Your task to perform on an android device: open chrome privacy settings Image 0: 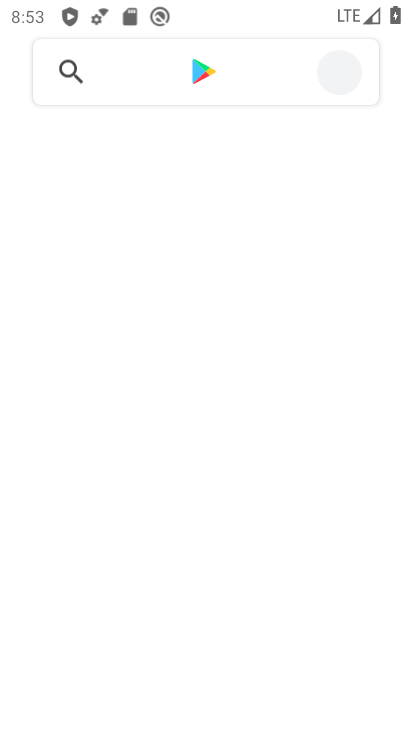
Step 0: press home button
Your task to perform on an android device: open chrome privacy settings Image 1: 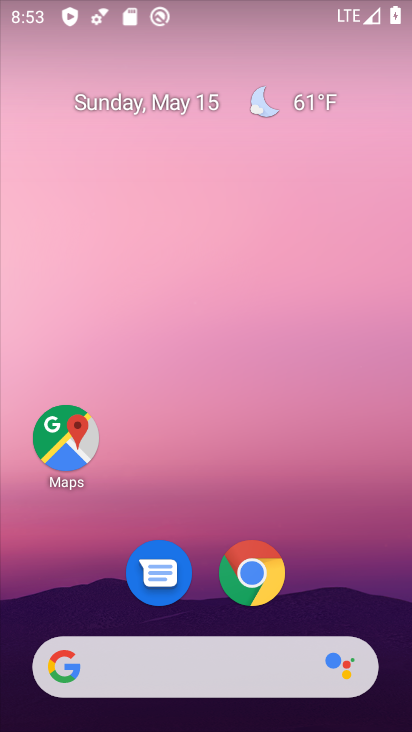
Step 1: click (253, 587)
Your task to perform on an android device: open chrome privacy settings Image 2: 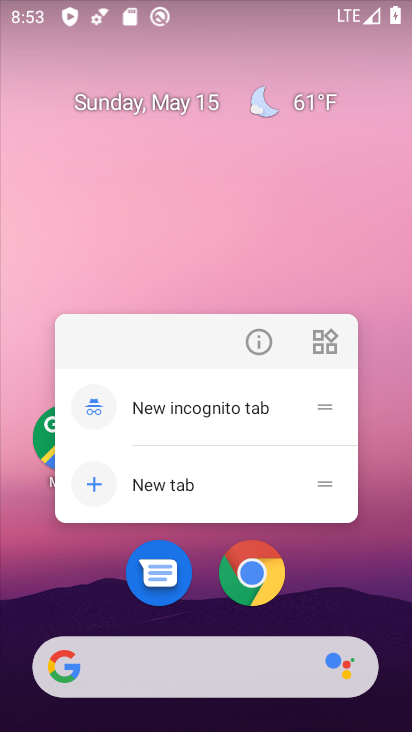
Step 2: click (251, 578)
Your task to perform on an android device: open chrome privacy settings Image 3: 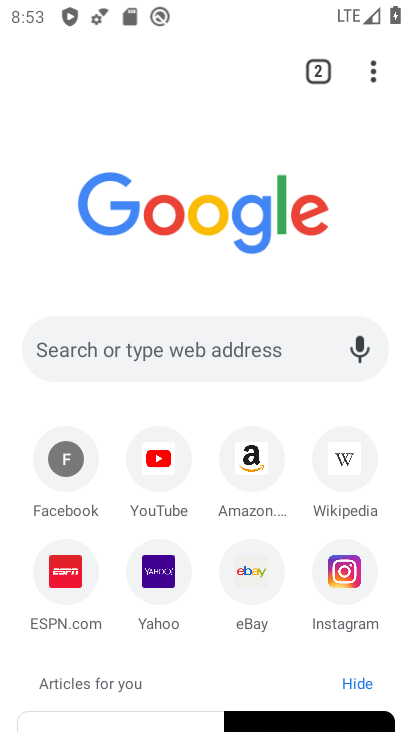
Step 3: click (373, 73)
Your task to perform on an android device: open chrome privacy settings Image 4: 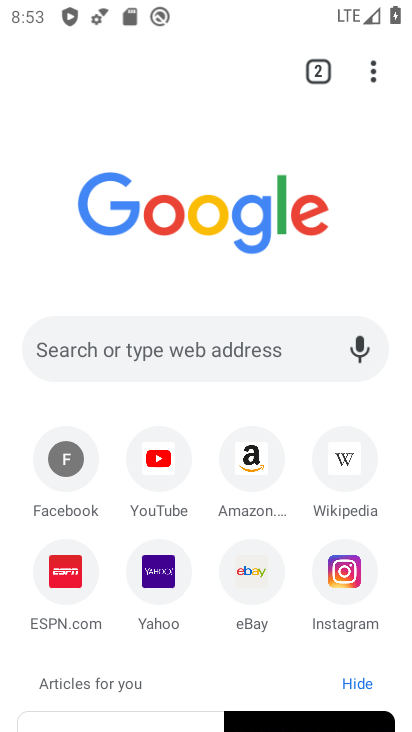
Step 4: click (373, 73)
Your task to perform on an android device: open chrome privacy settings Image 5: 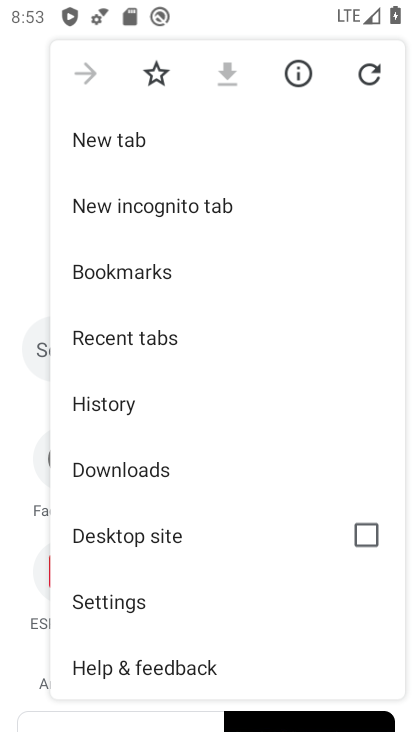
Step 5: click (96, 616)
Your task to perform on an android device: open chrome privacy settings Image 6: 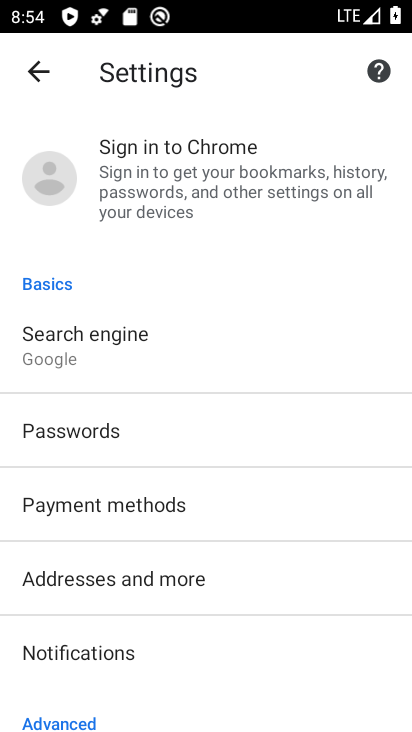
Step 6: drag from (28, 530) to (197, 220)
Your task to perform on an android device: open chrome privacy settings Image 7: 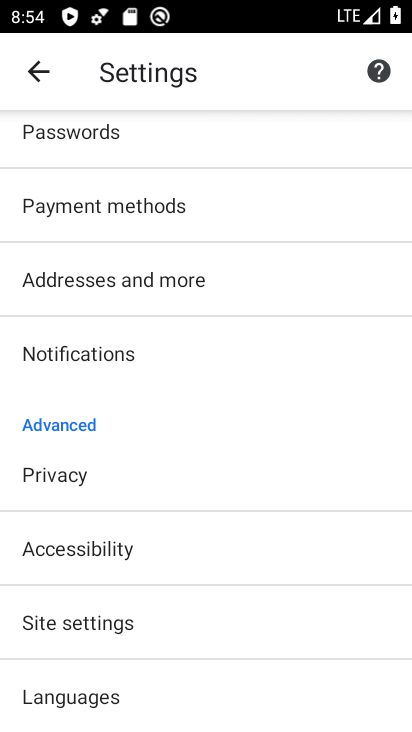
Step 7: click (36, 473)
Your task to perform on an android device: open chrome privacy settings Image 8: 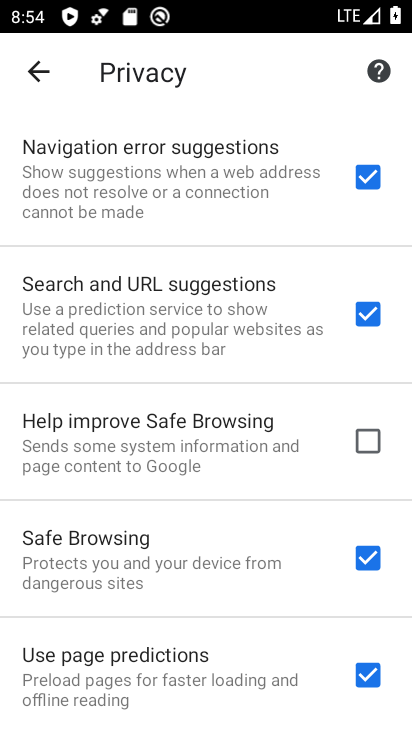
Step 8: task complete